Your task to perform on an android device: open app "Upside-Cash back on gas & food" Image 0: 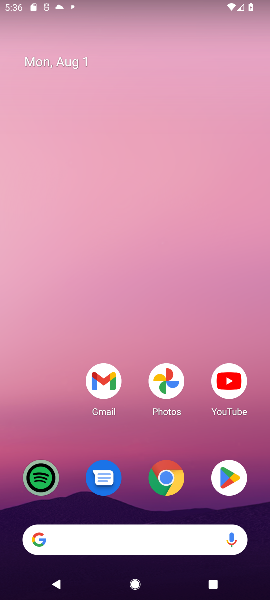
Step 0: press home button
Your task to perform on an android device: open app "Upside-Cash back on gas & food" Image 1: 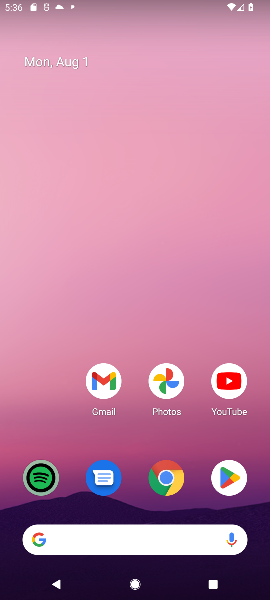
Step 1: click (230, 487)
Your task to perform on an android device: open app "Upside-Cash back on gas & food" Image 2: 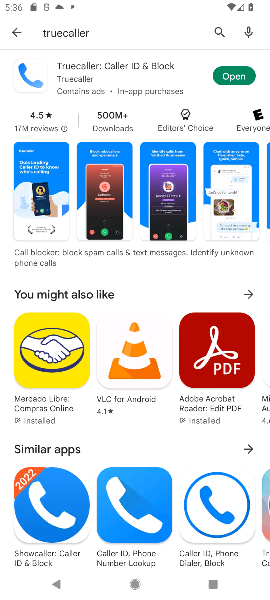
Step 2: click (220, 32)
Your task to perform on an android device: open app "Upside-Cash back on gas & food" Image 3: 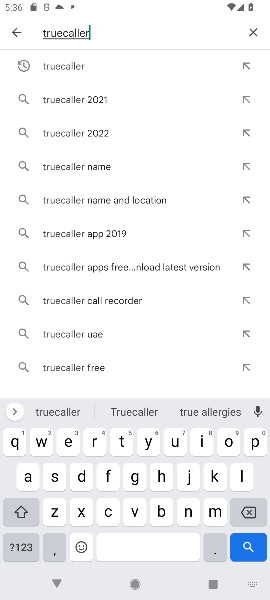
Step 3: click (254, 30)
Your task to perform on an android device: open app "Upside-Cash back on gas & food" Image 4: 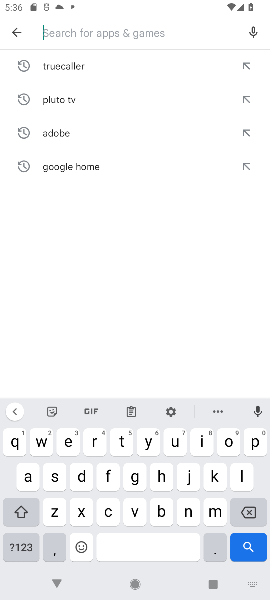
Step 4: click (176, 440)
Your task to perform on an android device: open app "Upside-Cash back on gas & food" Image 5: 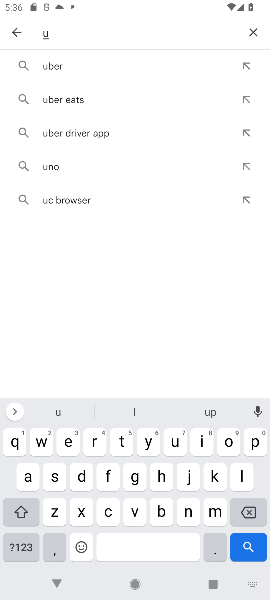
Step 5: click (253, 447)
Your task to perform on an android device: open app "Upside-Cash back on gas & food" Image 6: 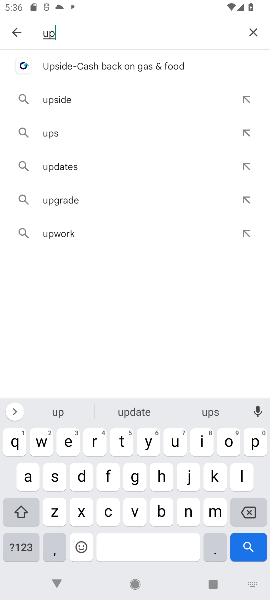
Step 6: click (49, 479)
Your task to perform on an android device: open app "Upside-Cash back on gas & food" Image 7: 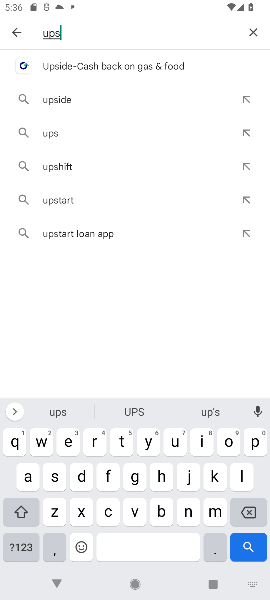
Step 7: click (75, 68)
Your task to perform on an android device: open app "Upside-Cash back on gas & food" Image 8: 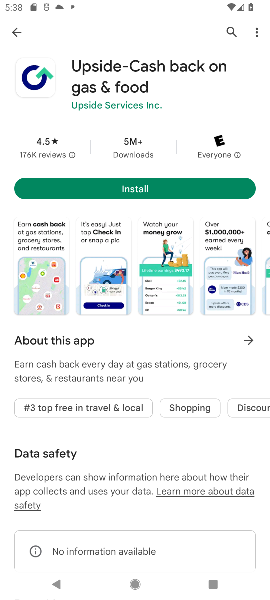
Step 8: task complete